Your task to perform on an android device: Search for asus zenbook on newegg.com, select the first entry, and add it to the cart. Image 0: 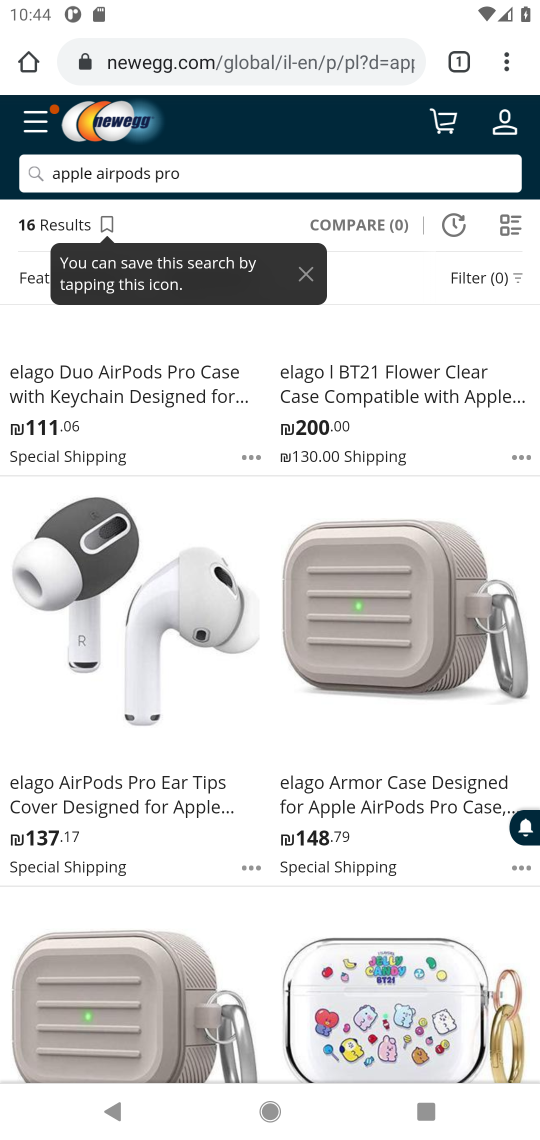
Step 0: task impossible